Your task to perform on an android device: Open my contact list Image 0: 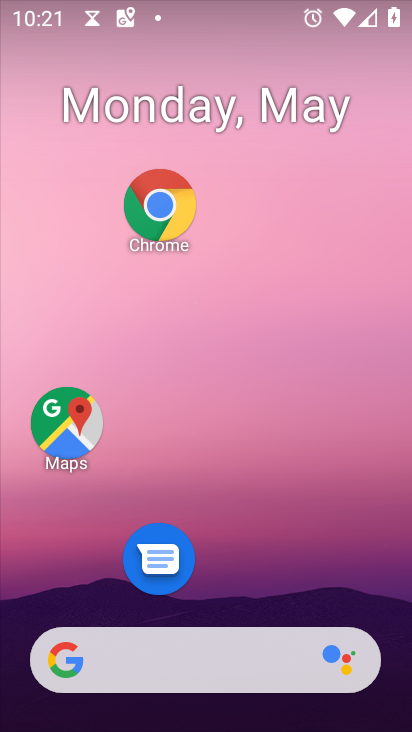
Step 0: click (359, 157)
Your task to perform on an android device: Open my contact list Image 1: 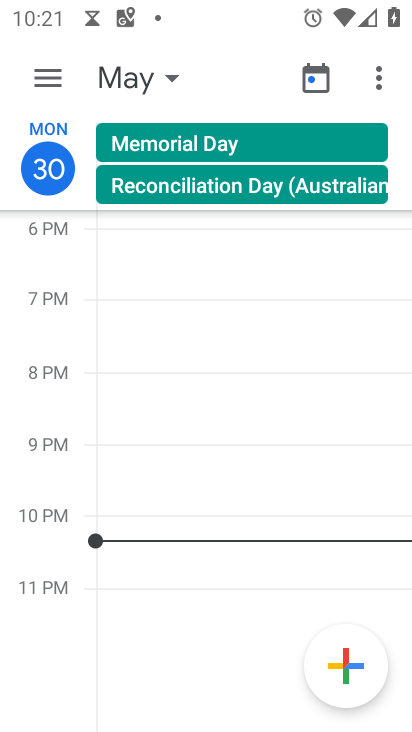
Step 1: press back button
Your task to perform on an android device: Open my contact list Image 2: 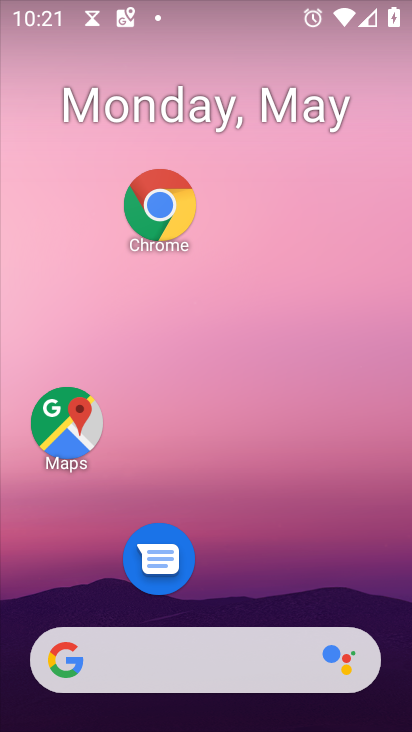
Step 2: drag from (287, 687) to (233, 74)
Your task to perform on an android device: Open my contact list Image 3: 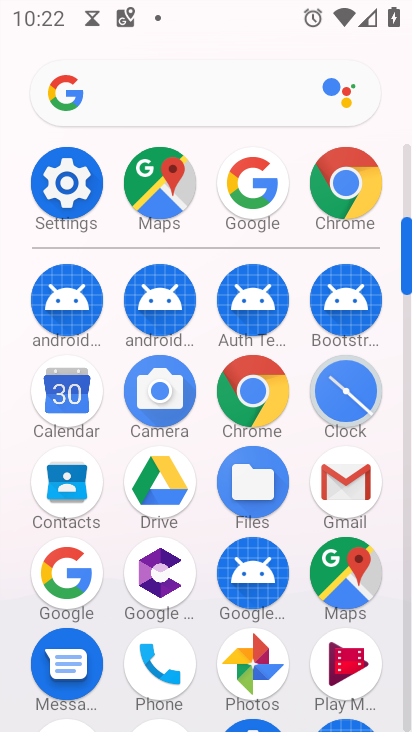
Step 3: click (70, 486)
Your task to perform on an android device: Open my contact list Image 4: 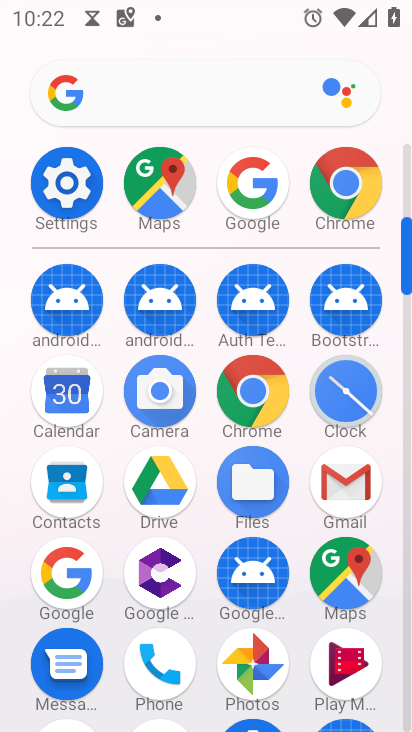
Step 4: click (70, 486)
Your task to perform on an android device: Open my contact list Image 5: 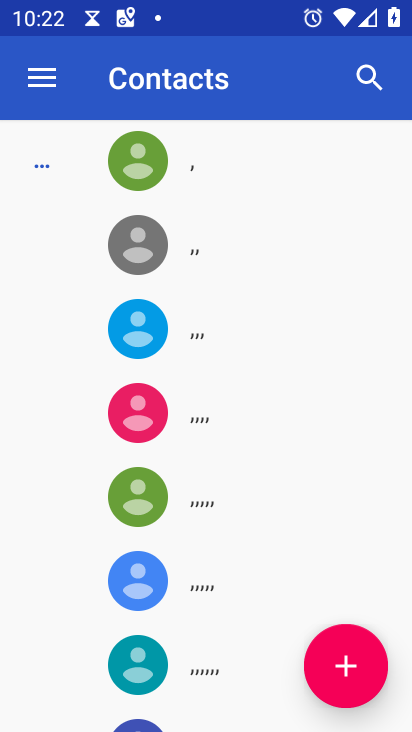
Step 5: task complete